Your task to perform on an android device: snooze an email in the gmail app Image 0: 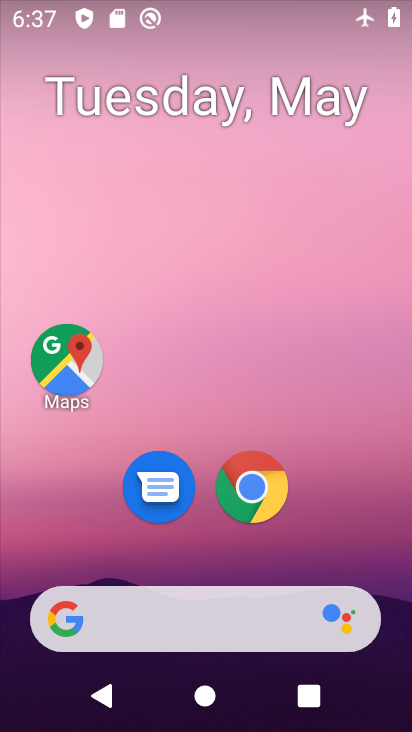
Step 0: drag from (328, 490) to (186, 55)
Your task to perform on an android device: snooze an email in the gmail app Image 1: 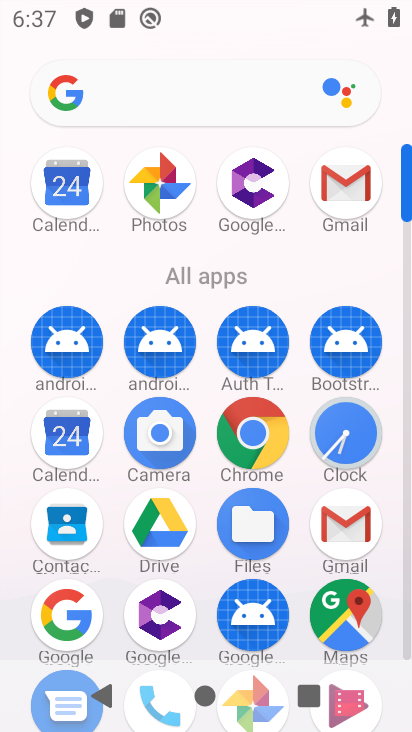
Step 1: click (340, 175)
Your task to perform on an android device: snooze an email in the gmail app Image 2: 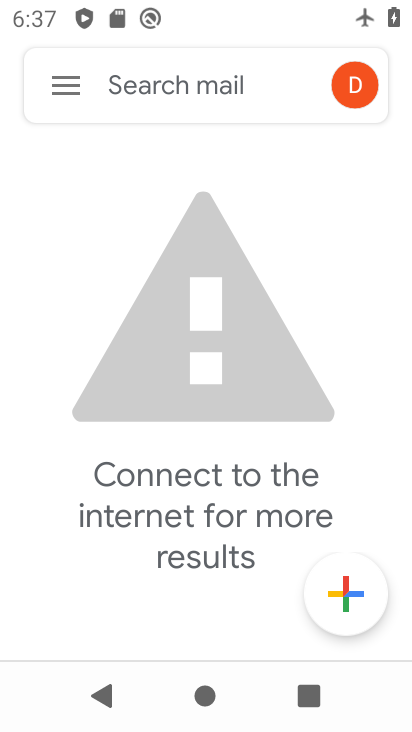
Step 2: click (64, 90)
Your task to perform on an android device: snooze an email in the gmail app Image 3: 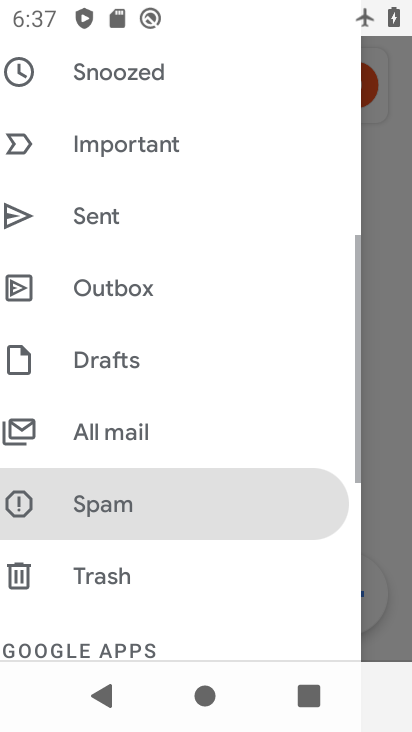
Step 3: click (64, 90)
Your task to perform on an android device: snooze an email in the gmail app Image 4: 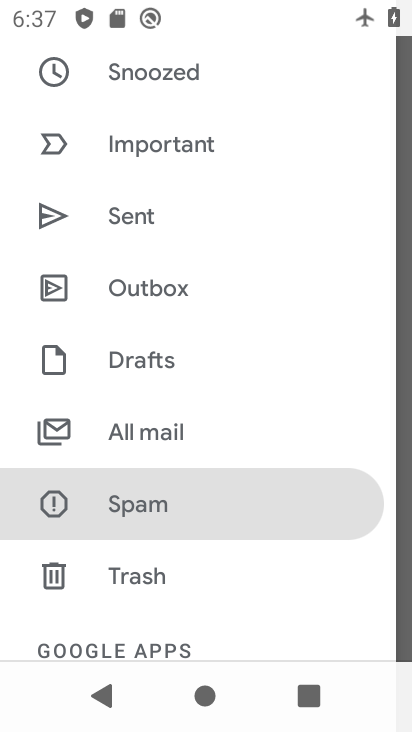
Step 4: click (174, 426)
Your task to perform on an android device: snooze an email in the gmail app Image 5: 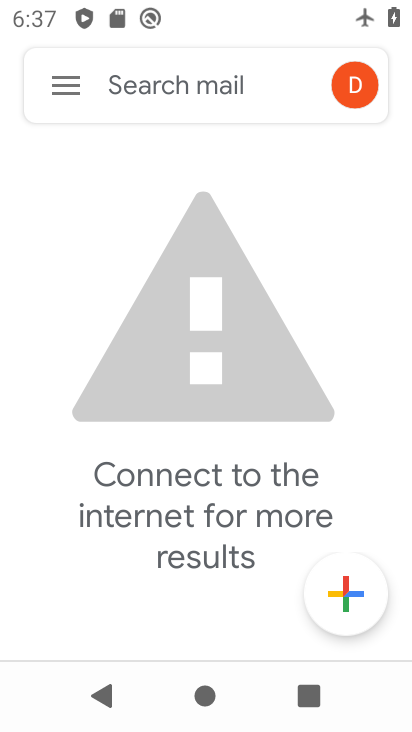
Step 5: task complete